Your task to perform on an android device: snooze an email in the gmail app Image 0: 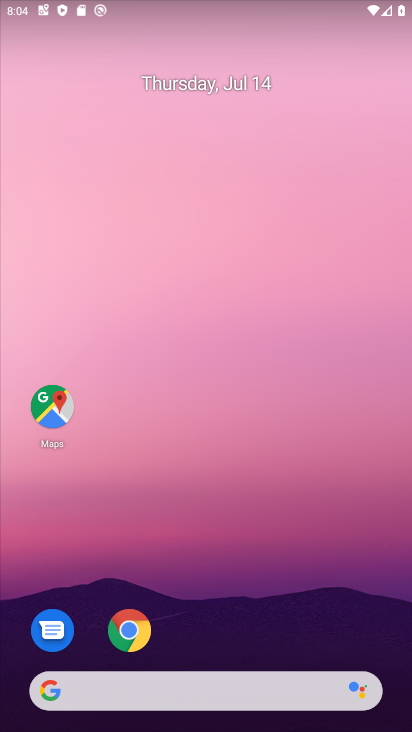
Step 0: drag from (315, 620) to (302, 82)
Your task to perform on an android device: snooze an email in the gmail app Image 1: 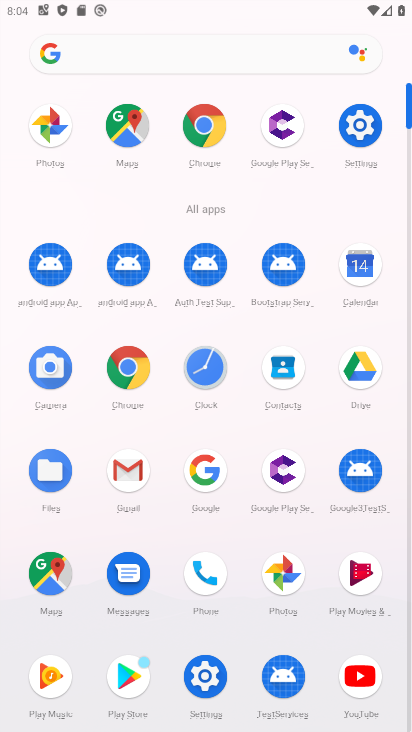
Step 1: click (124, 476)
Your task to perform on an android device: snooze an email in the gmail app Image 2: 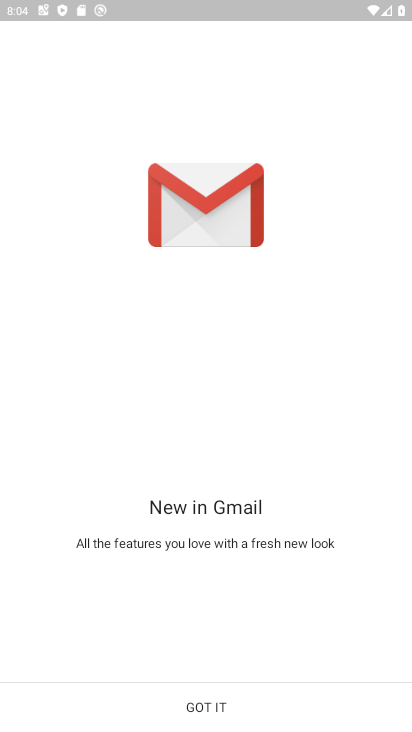
Step 2: click (189, 703)
Your task to perform on an android device: snooze an email in the gmail app Image 3: 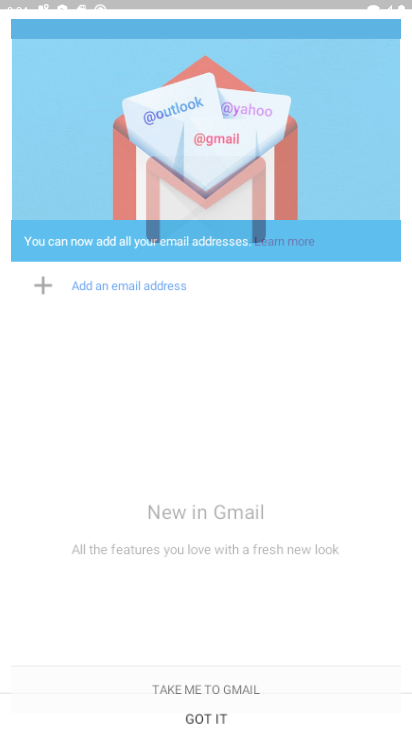
Step 3: click (189, 703)
Your task to perform on an android device: snooze an email in the gmail app Image 4: 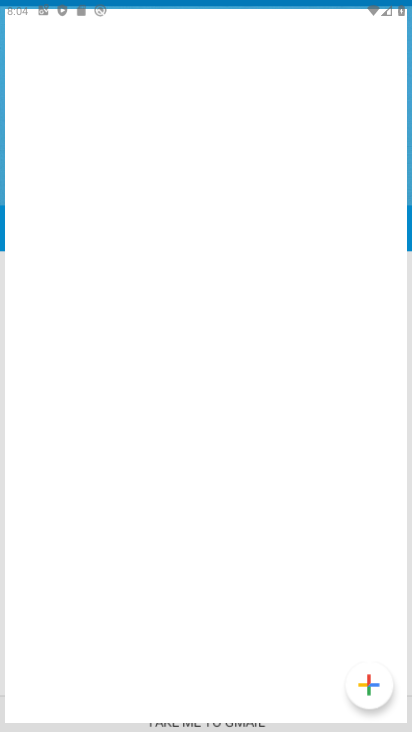
Step 4: click (189, 703)
Your task to perform on an android device: snooze an email in the gmail app Image 5: 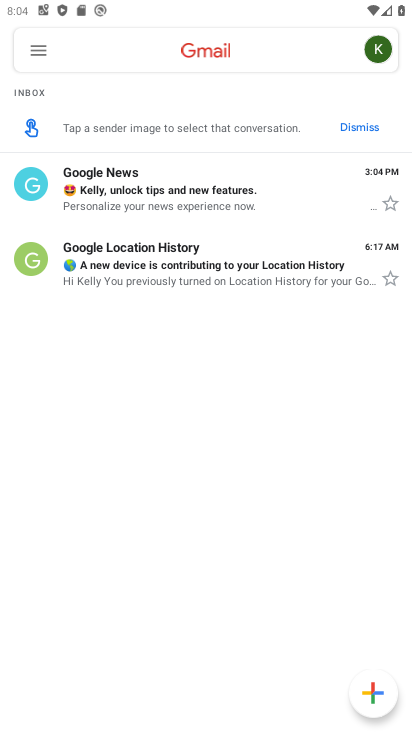
Step 5: click (35, 54)
Your task to perform on an android device: snooze an email in the gmail app Image 6: 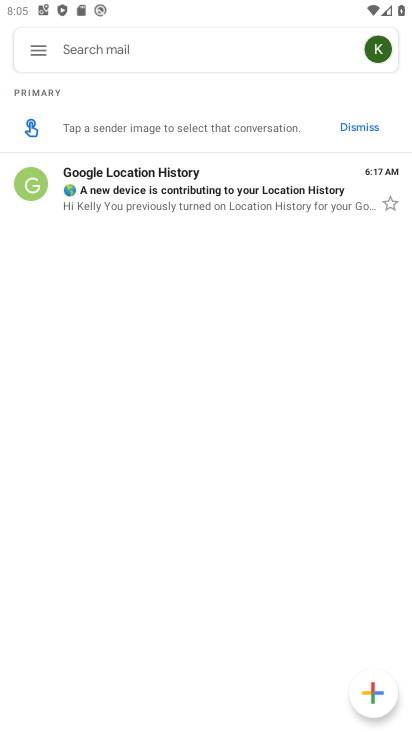
Step 6: click (152, 193)
Your task to perform on an android device: snooze an email in the gmail app Image 7: 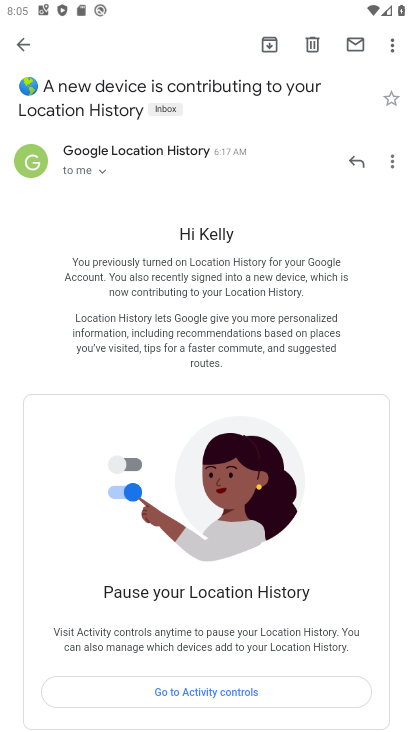
Step 7: click (383, 59)
Your task to perform on an android device: snooze an email in the gmail app Image 8: 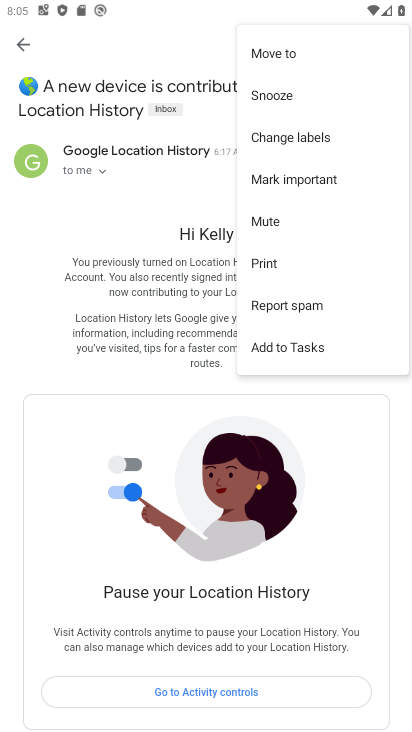
Step 8: click (318, 94)
Your task to perform on an android device: snooze an email in the gmail app Image 9: 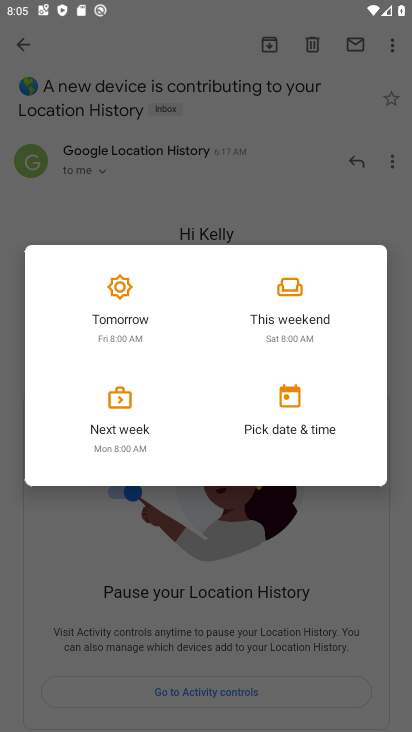
Step 9: click (132, 297)
Your task to perform on an android device: snooze an email in the gmail app Image 10: 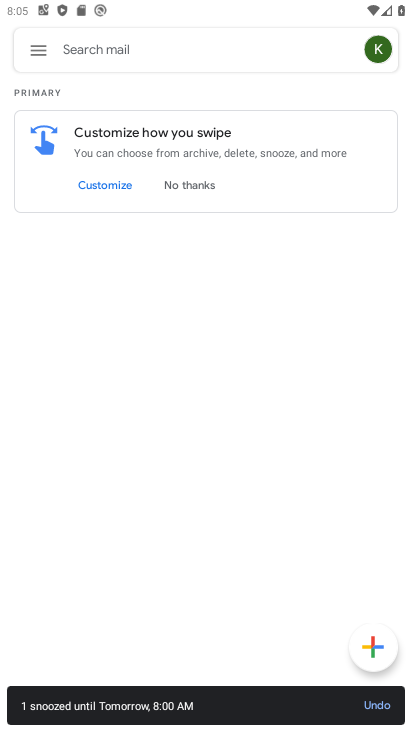
Step 10: task complete